Your task to perform on an android device: Go to location settings Image 0: 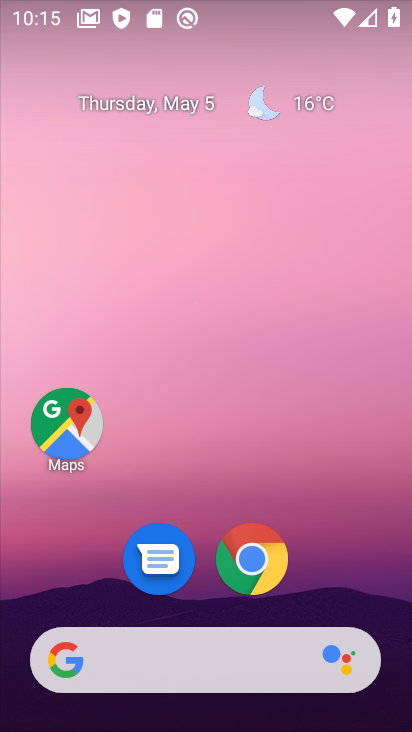
Step 0: drag from (354, 594) to (258, 187)
Your task to perform on an android device: Go to location settings Image 1: 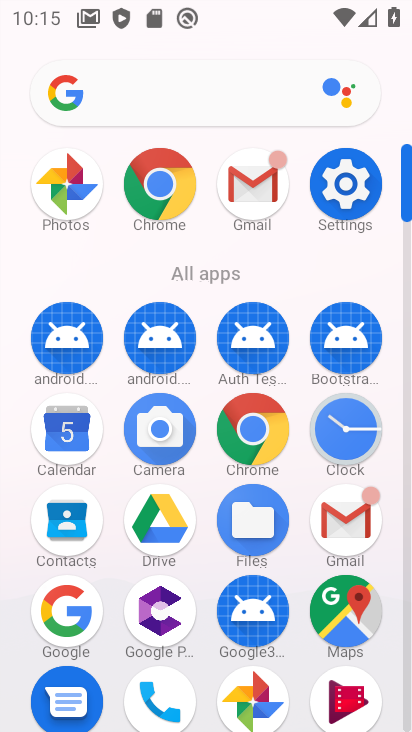
Step 1: click (352, 202)
Your task to perform on an android device: Go to location settings Image 2: 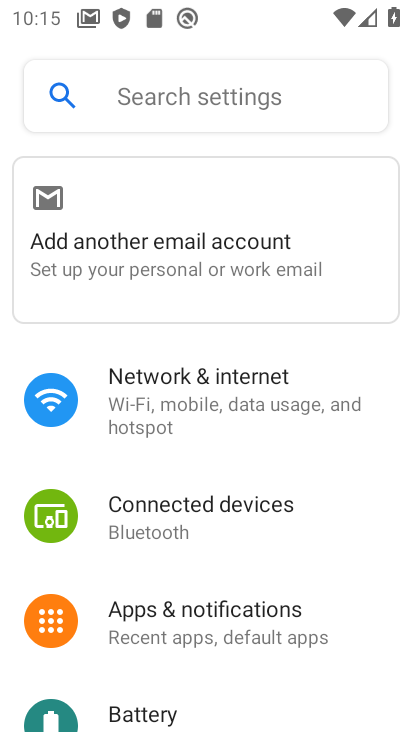
Step 2: drag from (317, 685) to (170, 218)
Your task to perform on an android device: Go to location settings Image 3: 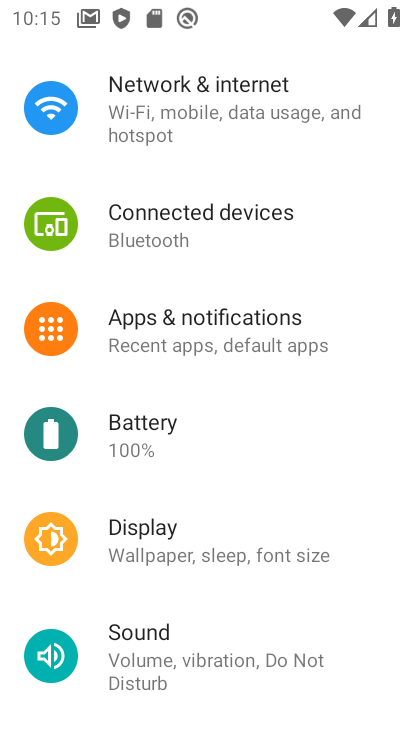
Step 3: drag from (246, 624) to (196, 179)
Your task to perform on an android device: Go to location settings Image 4: 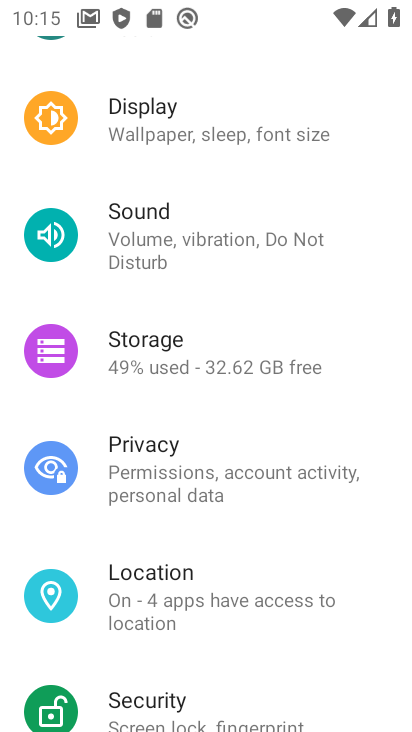
Step 4: click (279, 589)
Your task to perform on an android device: Go to location settings Image 5: 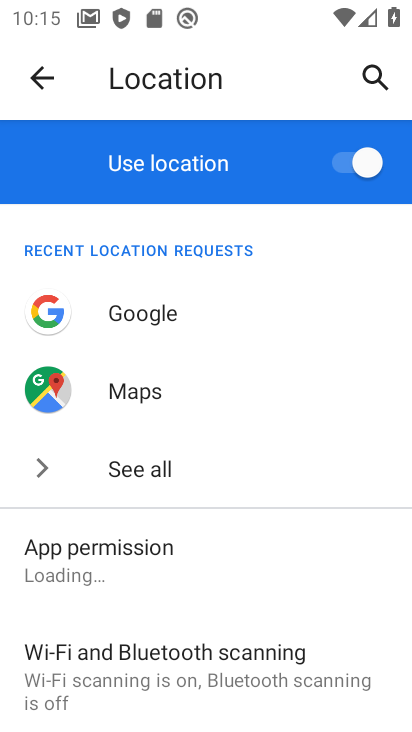
Step 5: drag from (279, 589) to (246, 269)
Your task to perform on an android device: Go to location settings Image 6: 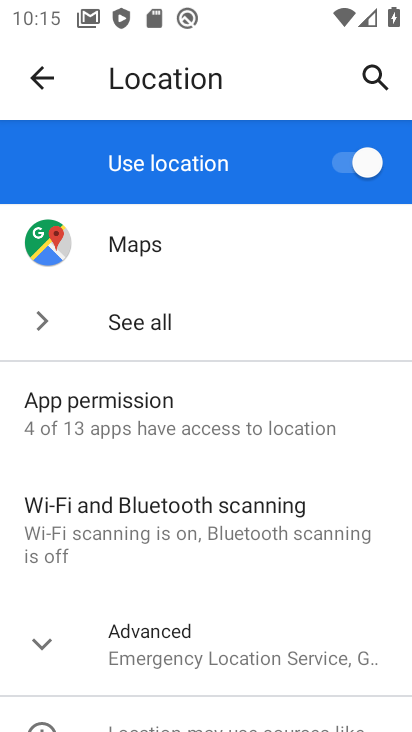
Step 6: click (311, 648)
Your task to perform on an android device: Go to location settings Image 7: 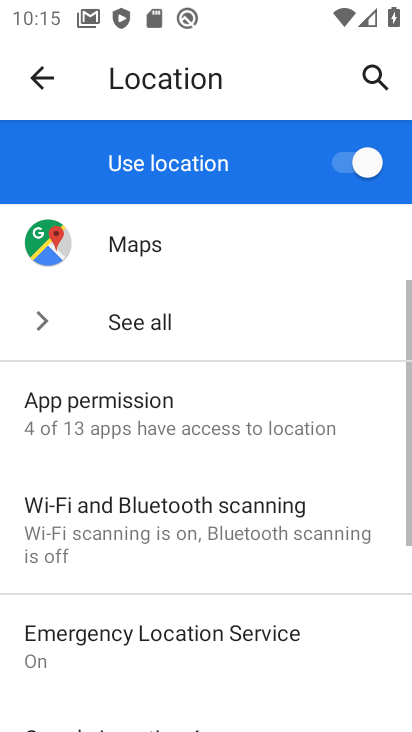
Step 7: task complete